Your task to perform on an android device: add a contact in the contacts app Image 0: 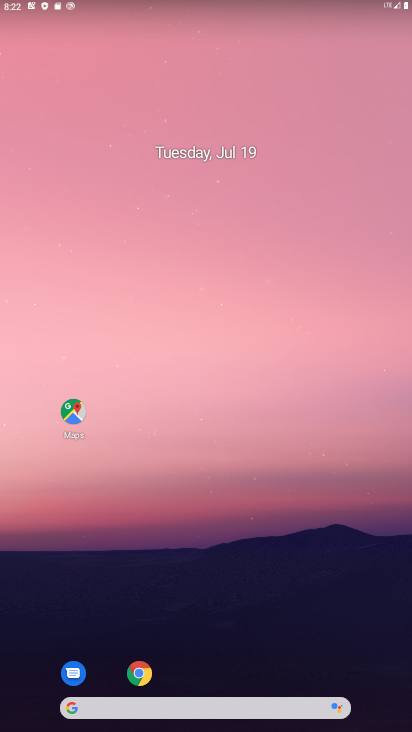
Step 0: drag from (357, 657) to (182, 32)
Your task to perform on an android device: add a contact in the contacts app Image 1: 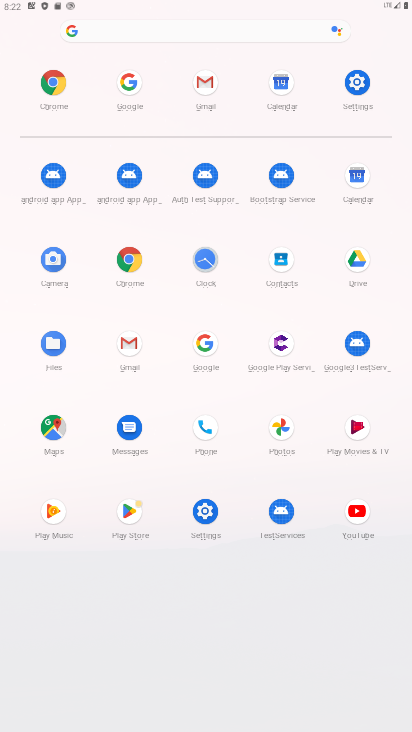
Step 1: click (277, 263)
Your task to perform on an android device: add a contact in the contacts app Image 2: 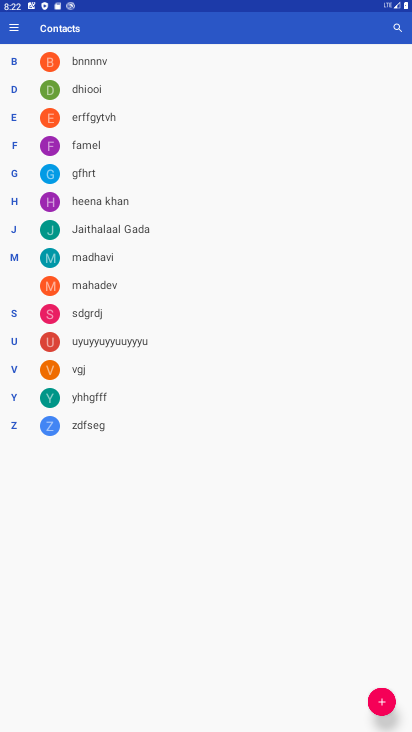
Step 2: click (386, 707)
Your task to perform on an android device: add a contact in the contacts app Image 3: 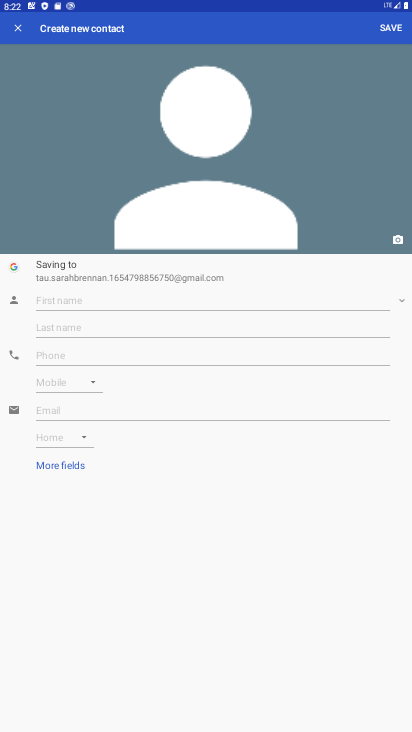
Step 3: click (59, 297)
Your task to perform on an android device: add a contact in the contacts app Image 4: 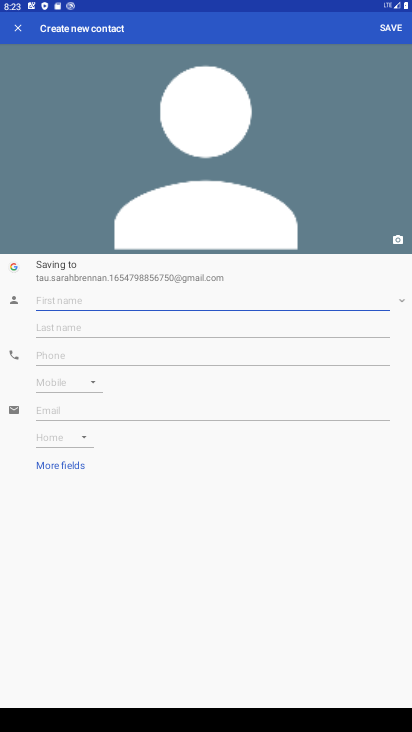
Step 4: type "himahu"
Your task to perform on an android device: add a contact in the contacts app Image 5: 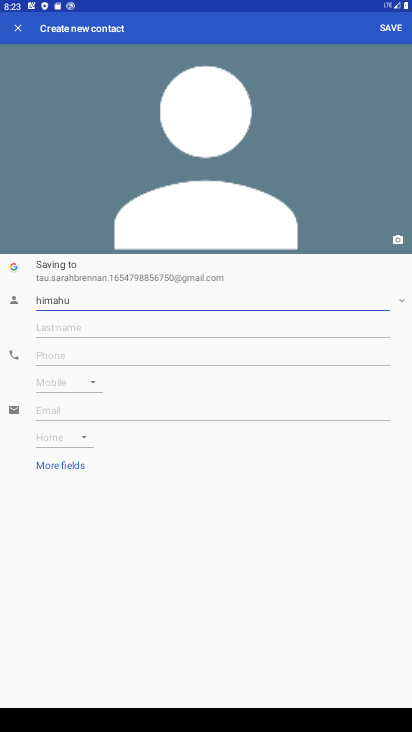
Step 5: click (378, 33)
Your task to perform on an android device: add a contact in the contacts app Image 6: 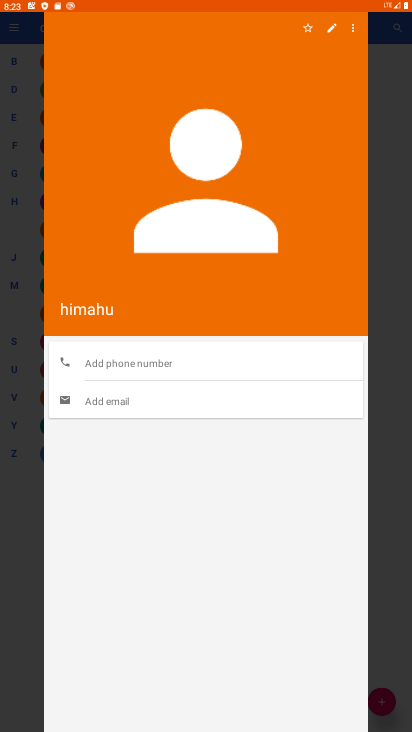
Step 6: task complete